Your task to perform on an android device: Go to calendar. Show me events next week Image 0: 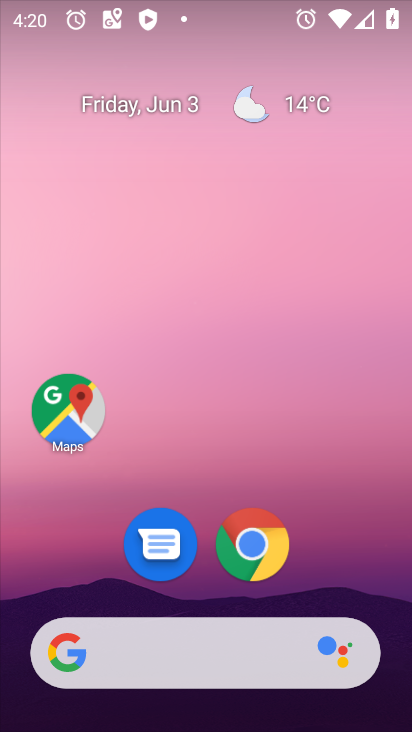
Step 0: drag from (384, 607) to (328, 84)
Your task to perform on an android device: Go to calendar. Show me events next week Image 1: 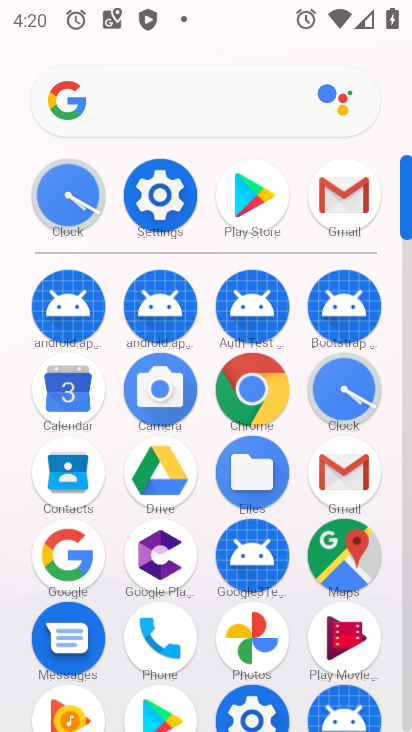
Step 1: click (58, 391)
Your task to perform on an android device: Go to calendar. Show me events next week Image 2: 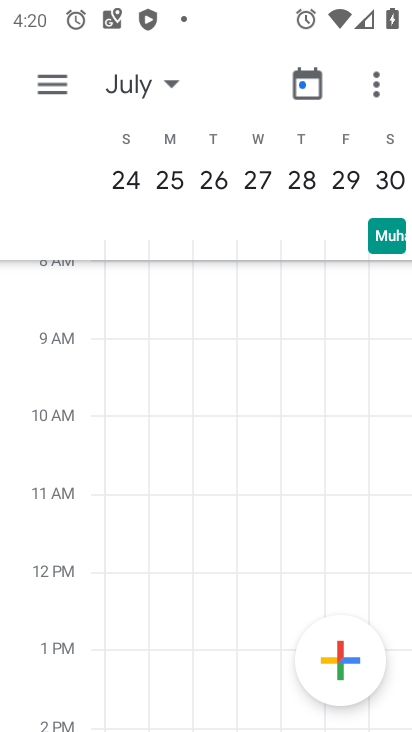
Step 2: click (167, 88)
Your task to perform on an android device: Go to calendar. Show me events next week Image 3: 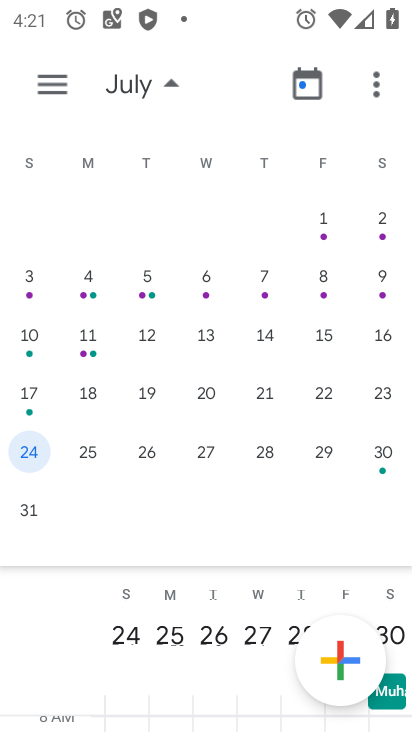
Step 3: drag from (143, 334) to (384, 337)
Your task to perform on an android device: Go to calendar. Show me events next week Image 4: 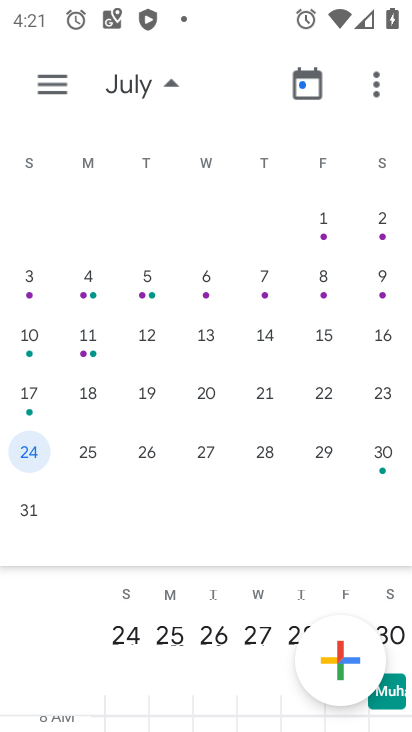
Step 4: drag from (152, 344) to (410, 334)
Your task to perform on an android device: Go to calendar. Show me events next week Image 5: 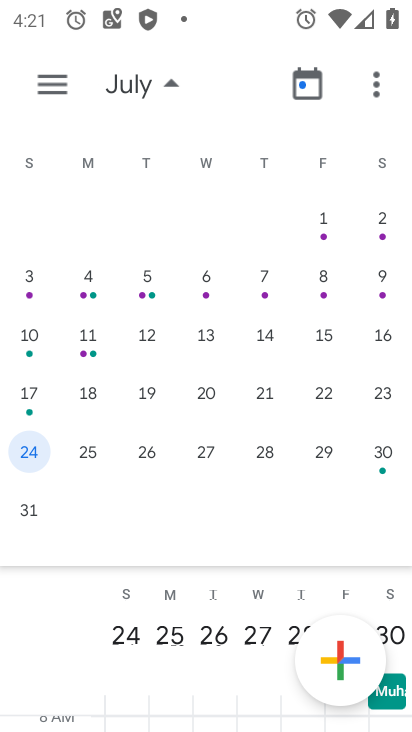
Step 5: drag from (31, 324) to (74, 335)
Your task to perform on an android device: Go to calendar. Show me events next week Image 6: 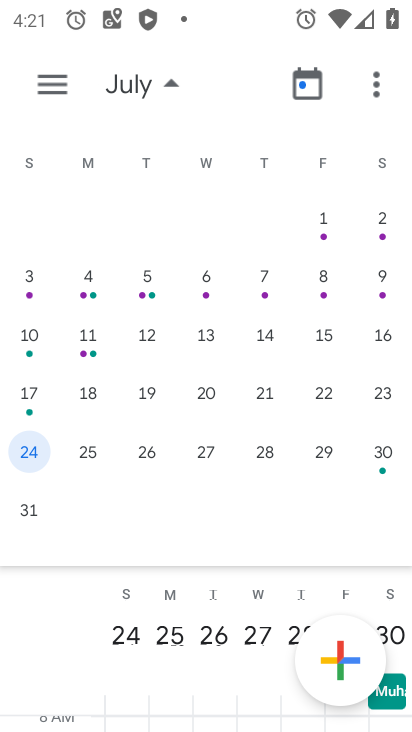
Step 6: drag from (88, 383) to (380, 345)
Your task to perform on an android device: Go to calendar. Show me events next week Image 7: 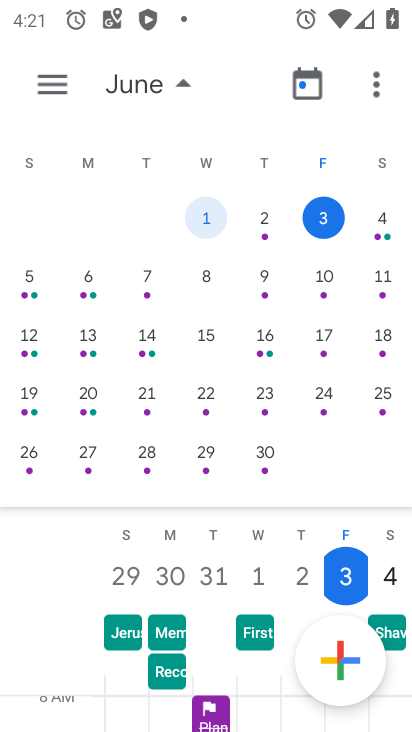
Step 7: click (26, 286)
Your task to perform on an android device: Go to calendar. Show me events next week Image 8: 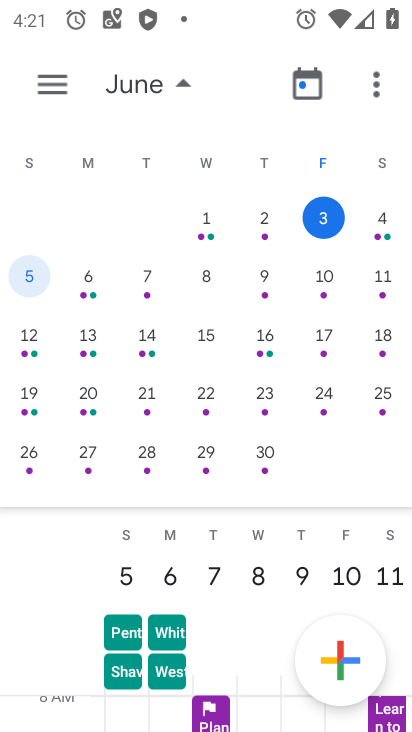
Step 8: task complete